Your task to perform on an android device: Set the phone to "Do not disturb". Image 0: 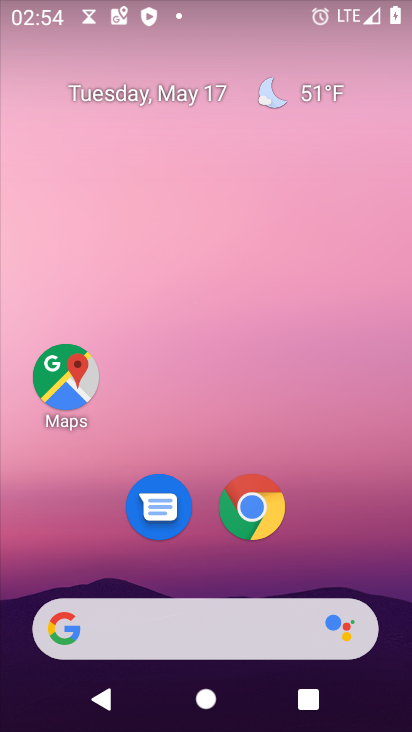
Step 0: drag from (206, 574) to (271, 32)
Your task to perform on an android device: Set the phone to "Do not disturb". Image 1: 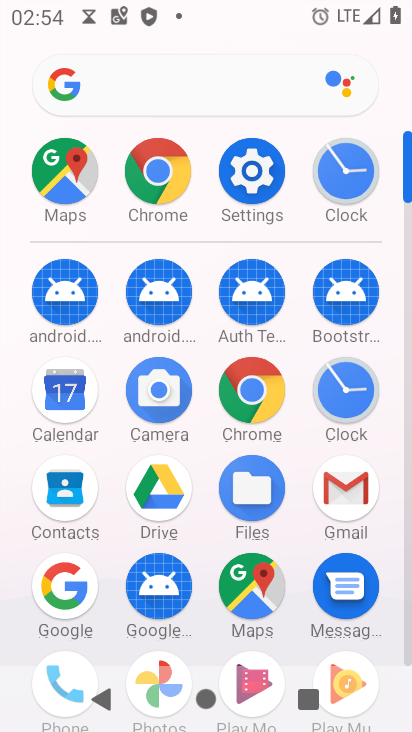
Step 1: click (256, 164)
Your task to perform on an android device: Set the phone to "Do not disturb". Image 2: 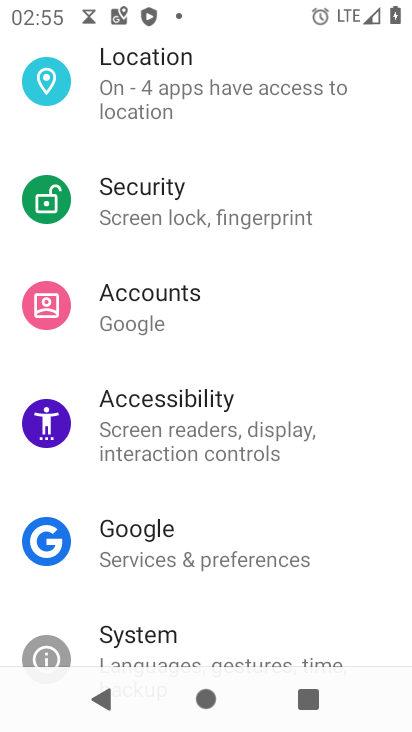
Step 2: drag from (230, 124) to (233, 330)
Your task to perform on an android device: Set the phone to "Do not disturb". Image 3: 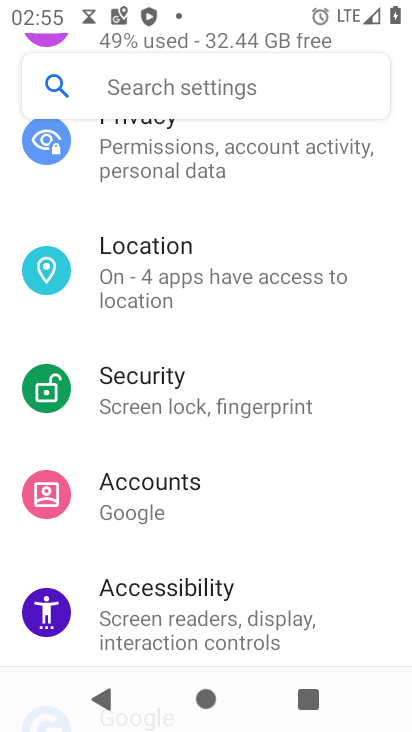
Step 3: drag from (213, 256) to (228, 393)
Your task to perform on an android device: Set the phone to "Do not disturb". Image 4: 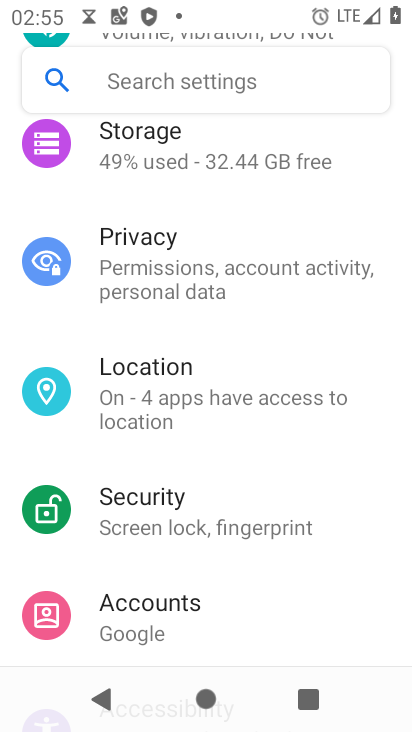
Step 4: drag from (212, 287) to (196, 433)
Your task to perform on an android device: Set the phone to "Do not disturb". Image 5: 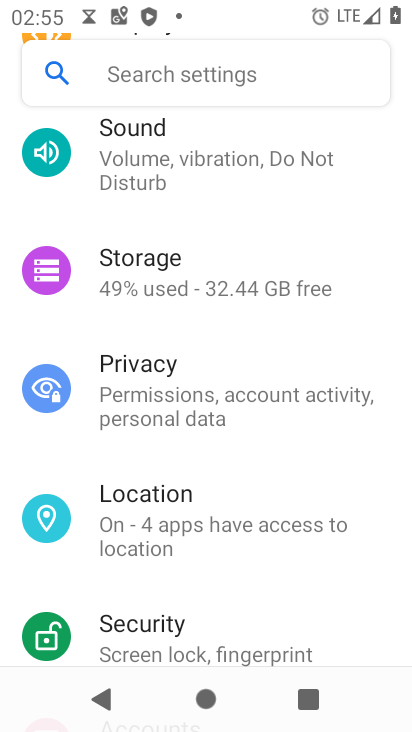
Step 5: drag from (175, 202) to (183, 366)
Your task to perform on an android device: Set the phone to "Do not disturb". Image 6: 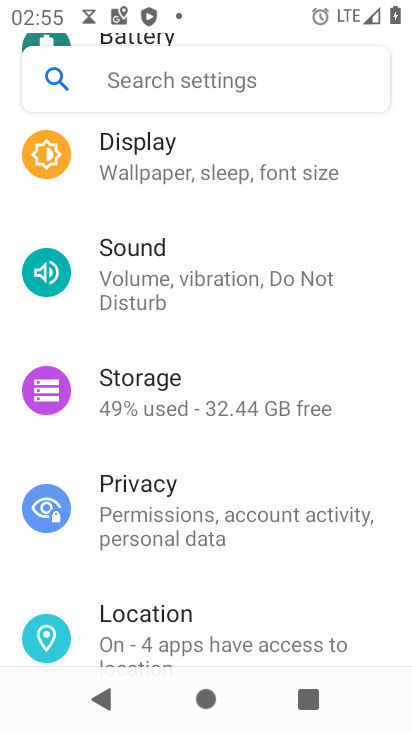
Step 6: click (193, 267)
Your task to perform on an android device: Set the phone to "Do not disturb". Image 7: 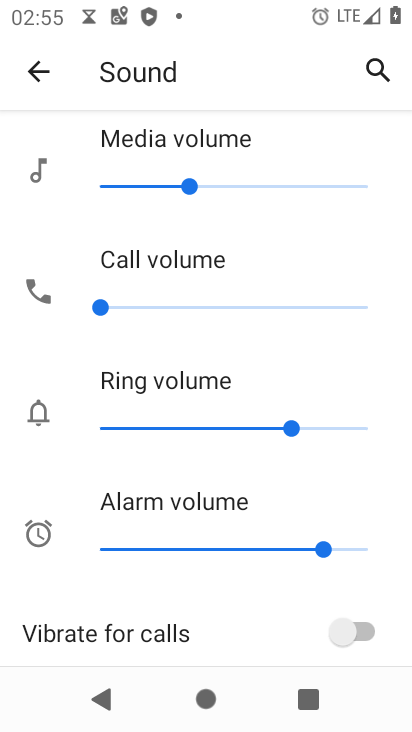
Step 7: drag from (129, 587) to (130, 287)
Your task to perform on an android device: Set the phone to "Do not disturb". Image 8: 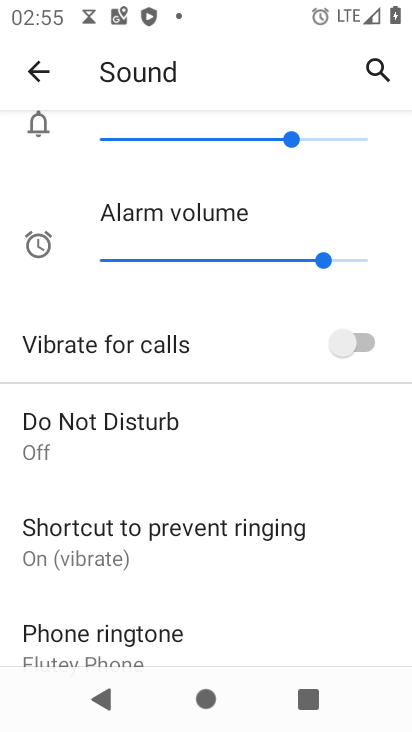
Step 8: click (123, 441)
Your task to perform on an android device: Set the phone to "Do not disturb". Image 9: 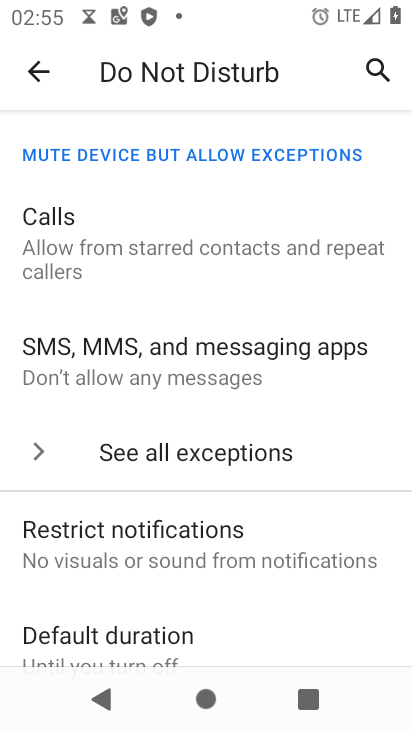
Step 9: drag from (148, 623) to (90, 307)
Your task to perform on an android device: Set the phone to "Do not disturb". Image 10: 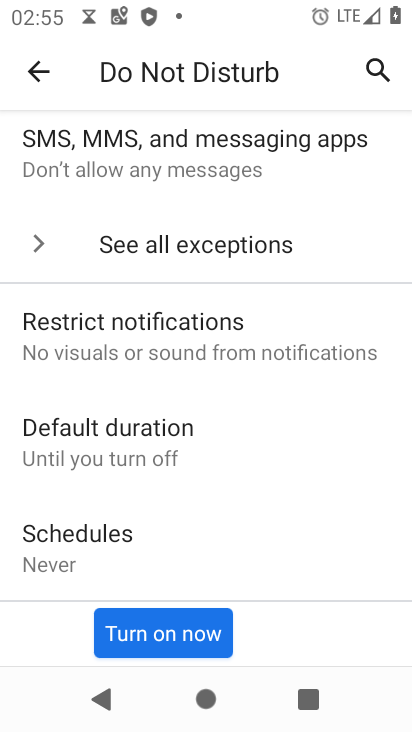
Step 10: click (147, 644)
Your task to perform on an android device: Set the phone to "Do not disturb". Image 11: 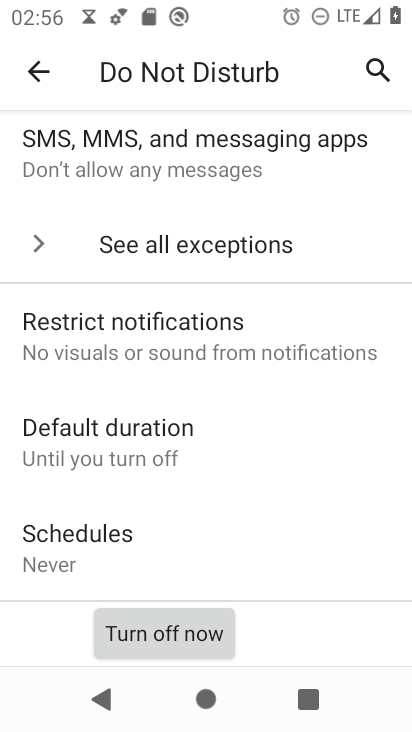
Step 11: task complete